Your task to perform on an android device: Check the news Image 0: 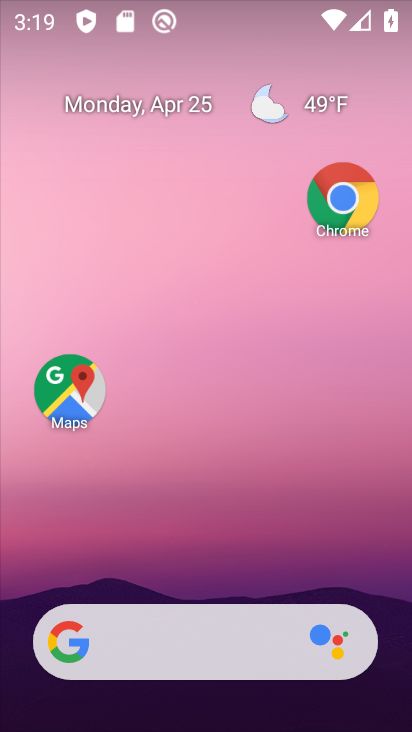
Step 0: drag from (2, 246) to (400, 401)
Your task to perform on an android device: Check the news Image 1: 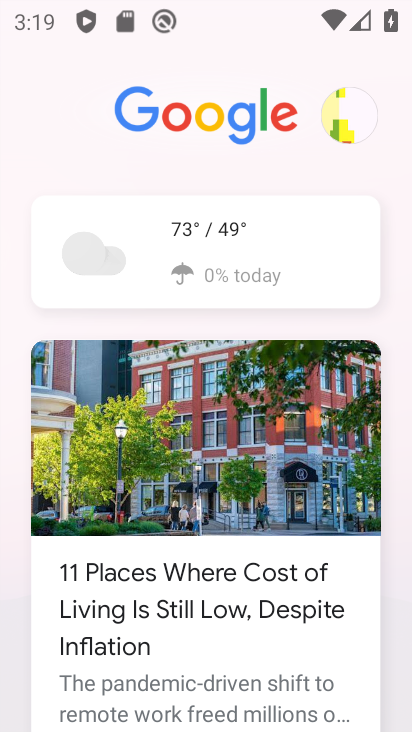
Step 1: task complete